Your task to perform on an android device: show emergency info Image 0: 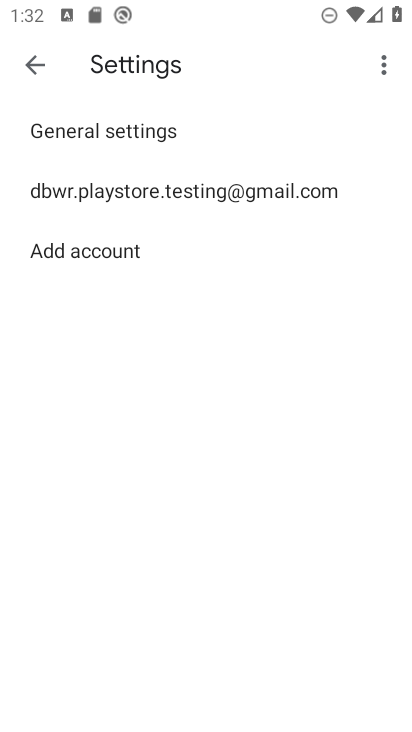
Step 0: press home button
Your task to perform on an android device: show emergency info Image 1: 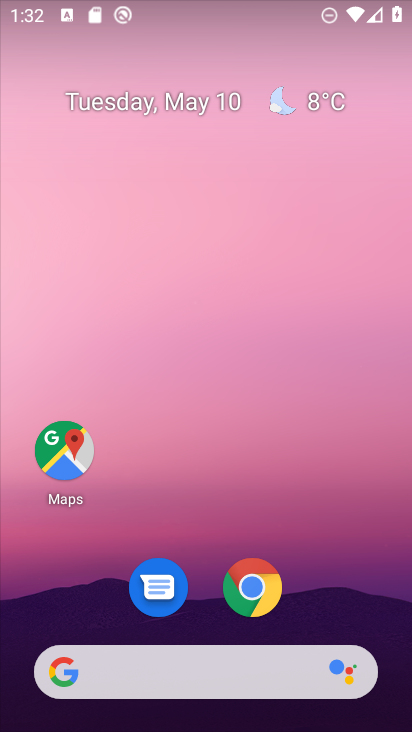
Step 1: click (334, 292)
Your task to perform on an android device: show emergency info Image 2: 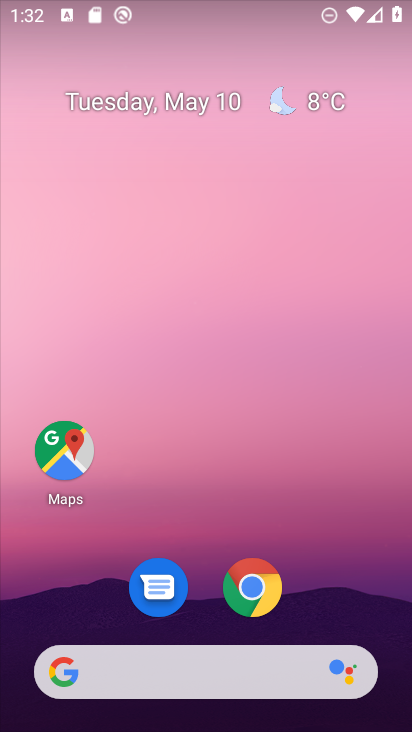
Step 2: drag from (395, 682) to (357, 241)
Your task to perform on an android device: show emergency info Image 3: 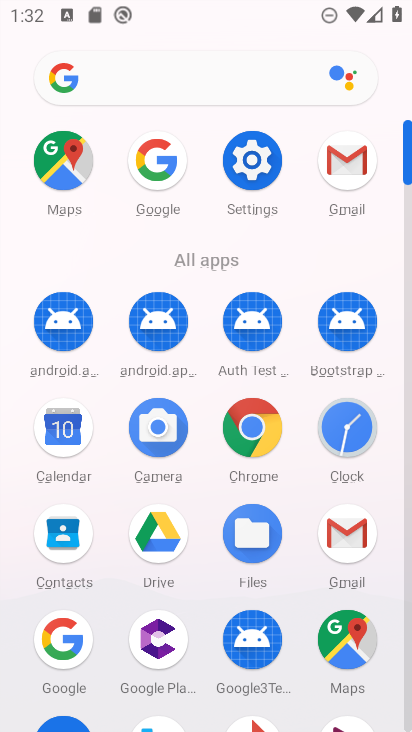
Step 3: click (271, 147)
Your task to perform on an android device: show emergency info Image 4: 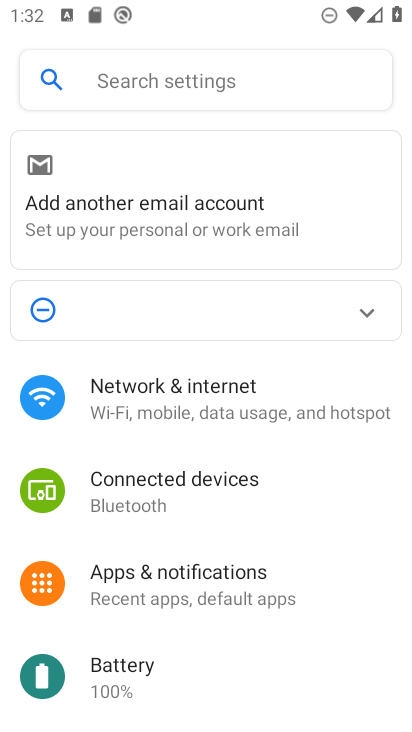
Step 4: drag from (369, 677) to (344, 325)
Your task to perform on an android device: show emergency info Image 5: 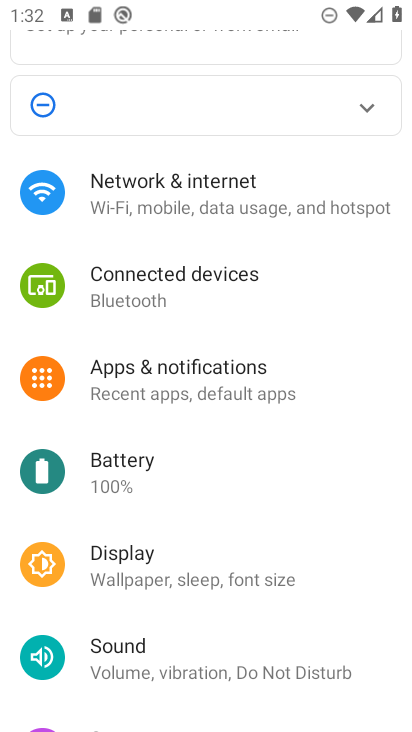
Step 5: drag from (398, 667) to (390, 293)
Your task to perform on an android device: show emergency info Image 6: 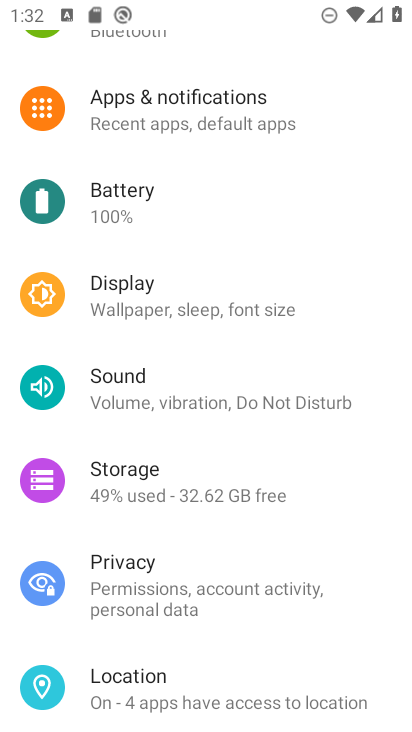
Step 6: drag from (381, 538) to (366, 295)
Your task to perform on an android device: show emergency info Image 7: 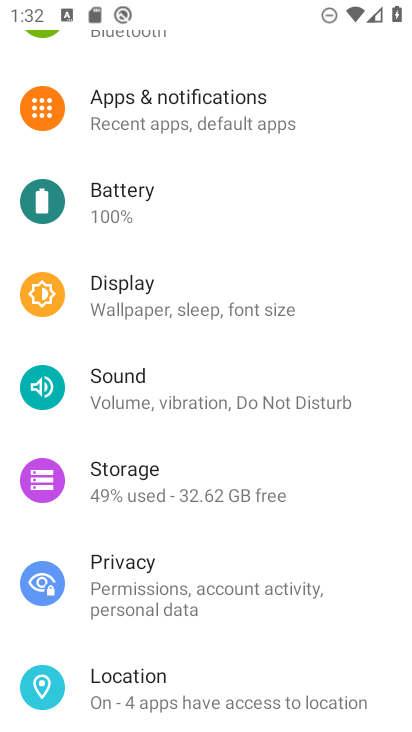
Step 7: drag from (383, 647) to (358, 310)
Your task to perform on an android device: show emergency info Image 8: 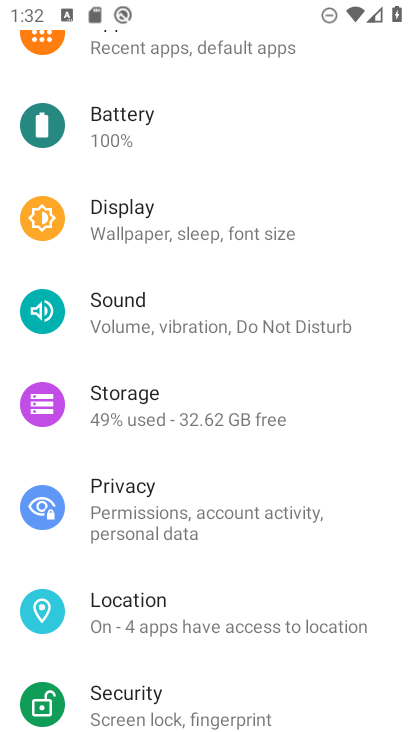
Step 8: drag from (393, 679) to (393, 282)
Your task to perform on an android device: show emergency info Image 9: 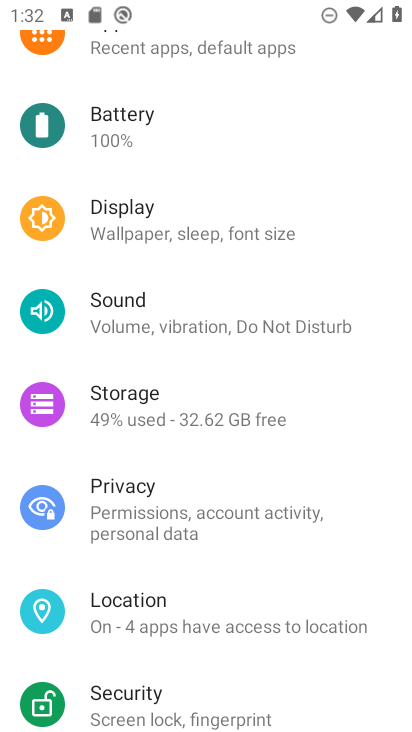
Step 9: drag from (386, 699) to (372, 241)
Your task to perform on an android device: show emergency info Image 10: 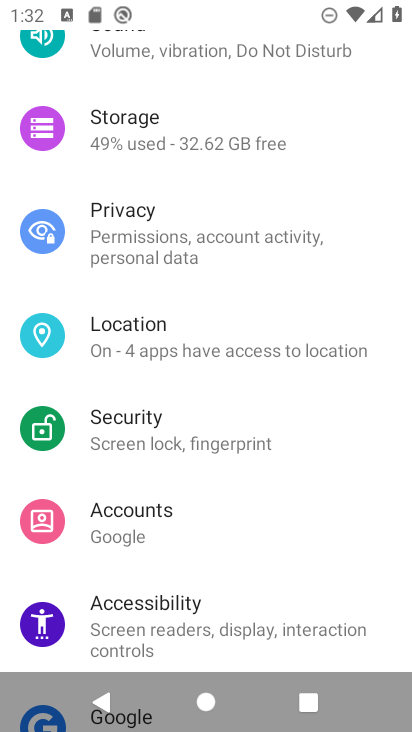
Step 10: drag from (396, 617) to (347, 320)
Your task to perform on an android device: show emergency info Image 11: 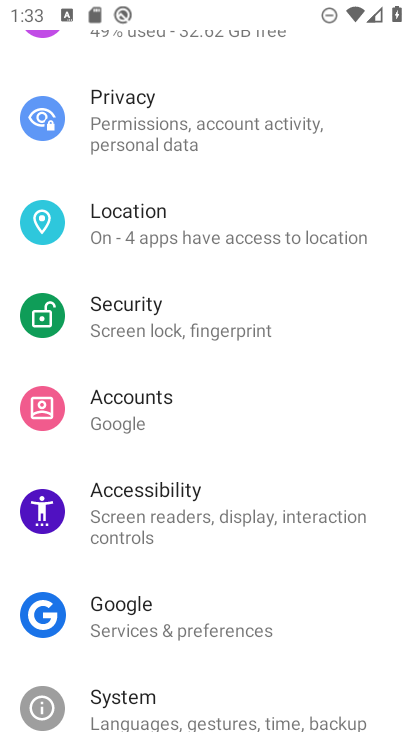
Step 11: drag from (385, 664) to (382, 319)
Your task to perform on an android device: show emergency info Image 12: 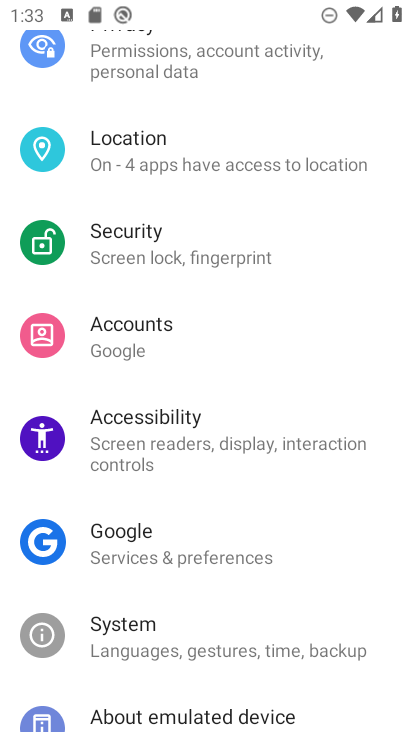
Step 12: drag from (390, 674) to (364, 327)
Your task to perform on an android device: show emergency info Image 13: 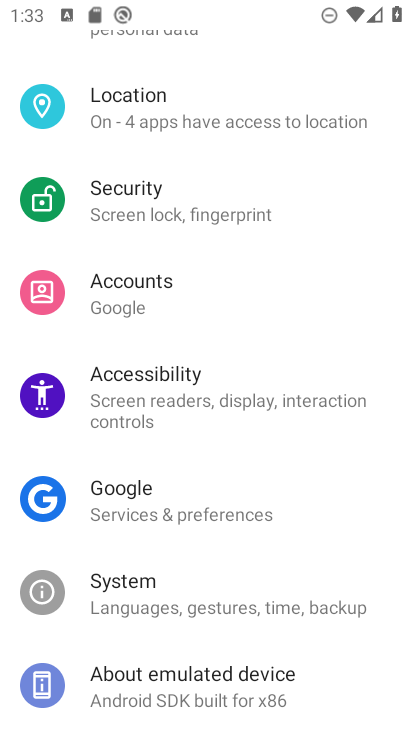
Step 13: click (129, 690)
Your task to perform on an android device: show emergency info Image 14: 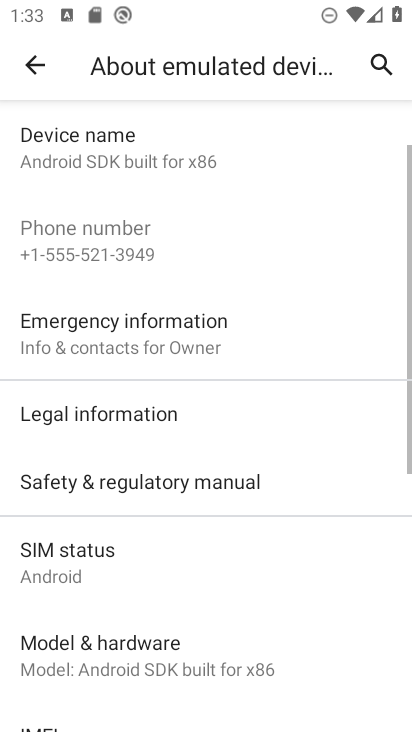
Step 14: click (91, 325)
Your task to perform on an android device: show emergency info Image 15: 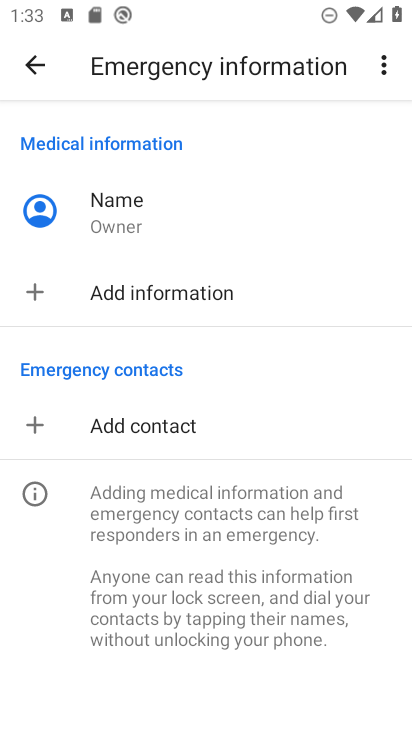
Step 15: task complete